Your task to perform on an android device: Go to notification settings Image 0: 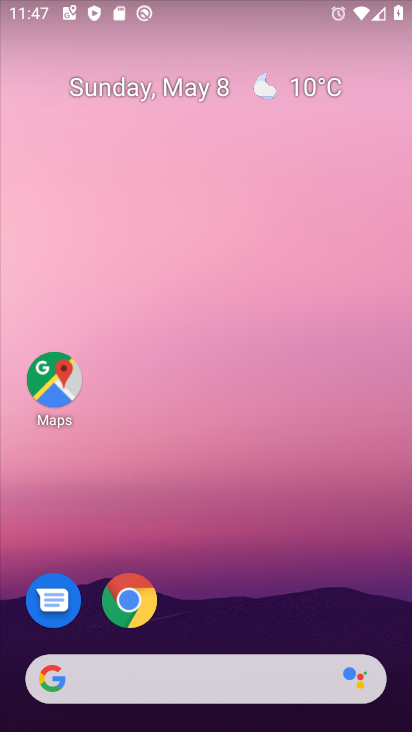
Step 0: drag from (238, 633) to (294, 184)
Your task to perform on an android device: Go to notification settings Image 1: 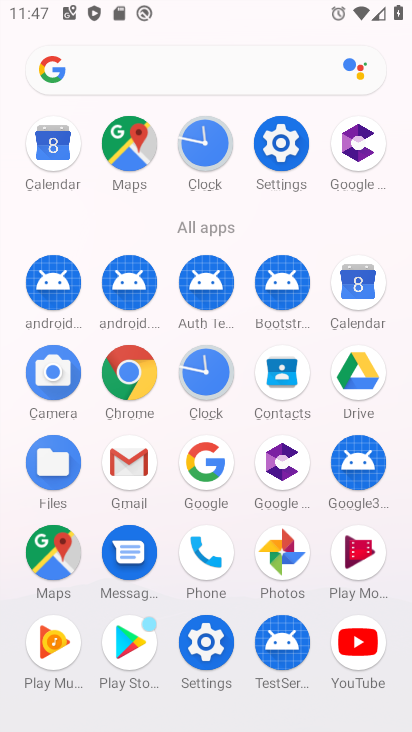
Step 1: click (204, 638)
Your task to perform on an android device: Go to notification settings Image 2: 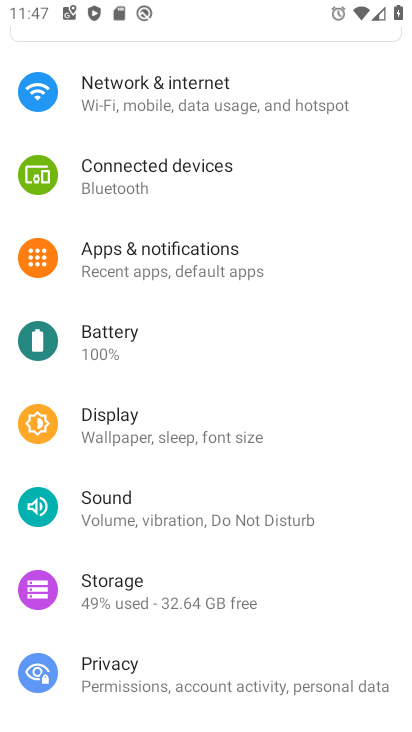
Step 2: click (194, 266)
Your task to perform on an android device: Go to notification settings Image 3: 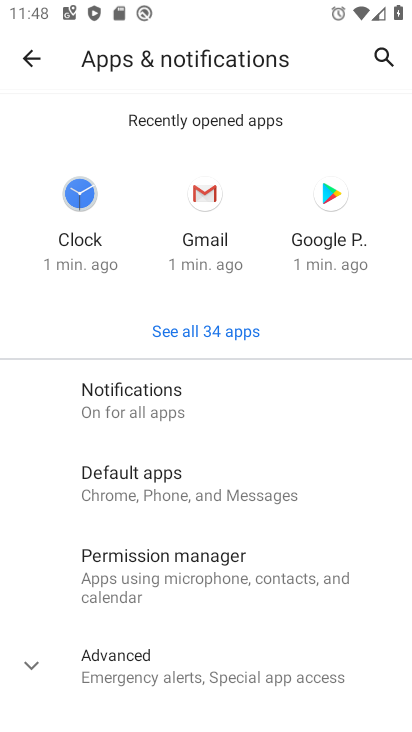
Step 3: task complete